Your task to perform on an android device: What's the weather going to be this weekend? Image 0: 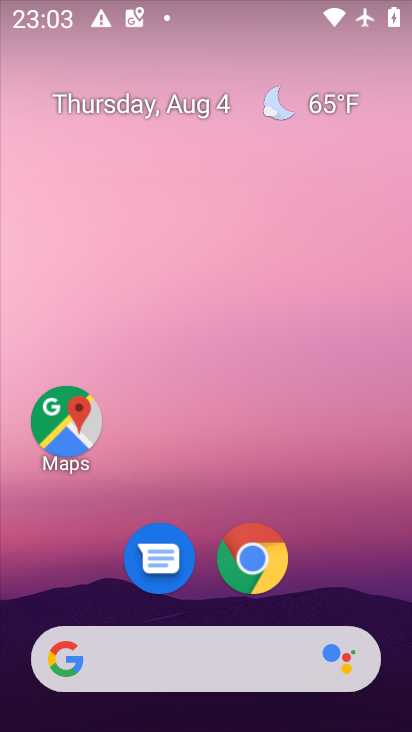
Step 0: drag from (351, 559) to (369, 138)
Your task to perform on an android device: What's the weather going to be this weekend? Image 1: 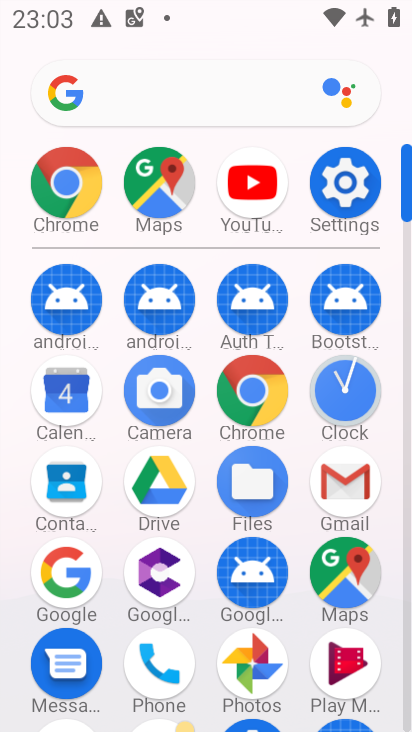
Step 1: press home button
Your task to perform on an android device: What's the weather going to be this weekend? Image 2: 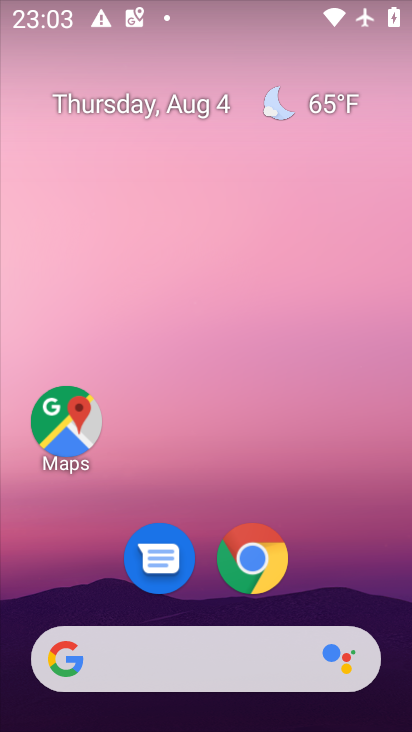
Step 2: click (306, 109)
Your task to perform on an android device: What's the weather going to be this weekend? Image 3: 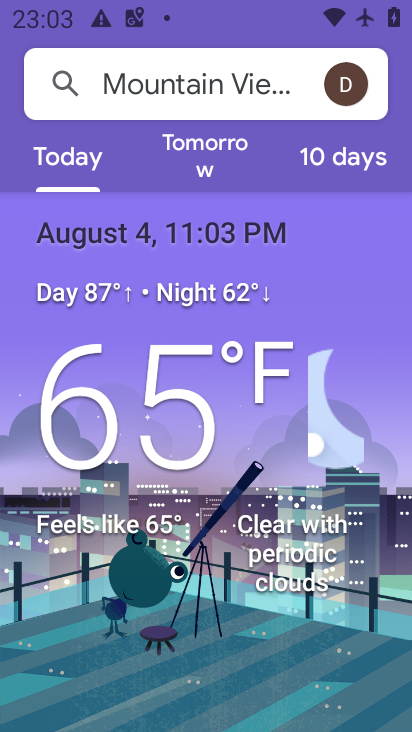
Step 3: click (329, 156)
Your task to perform on an android device: What's the weather going to be this weekend? Image 4: 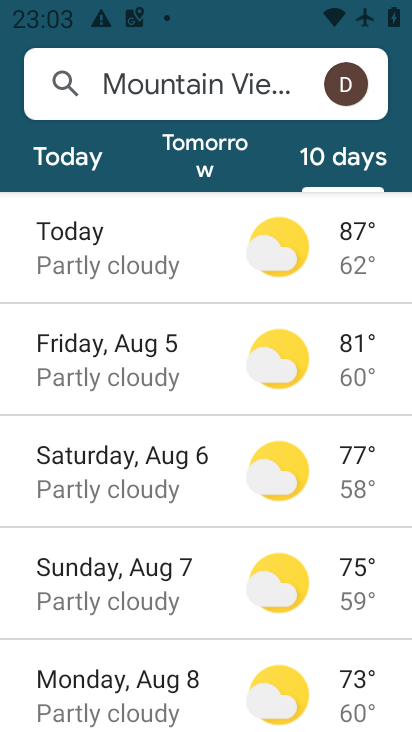
Step 4: task complete